Your task to perform on an android device: check out phone information Image 0: 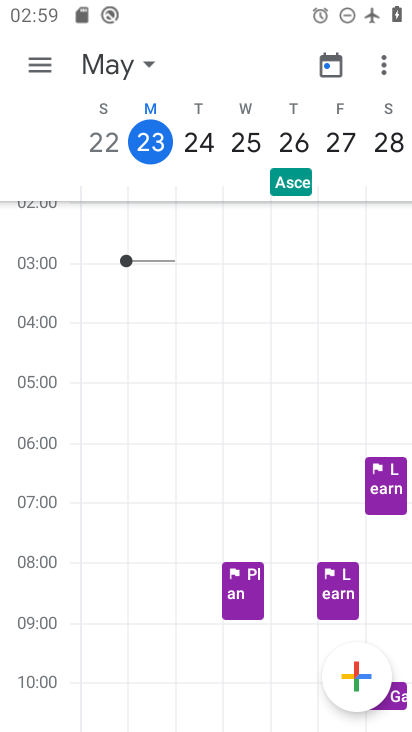
Step 0: press home button
Your task to perform on an android device: check out phone information Image 1: 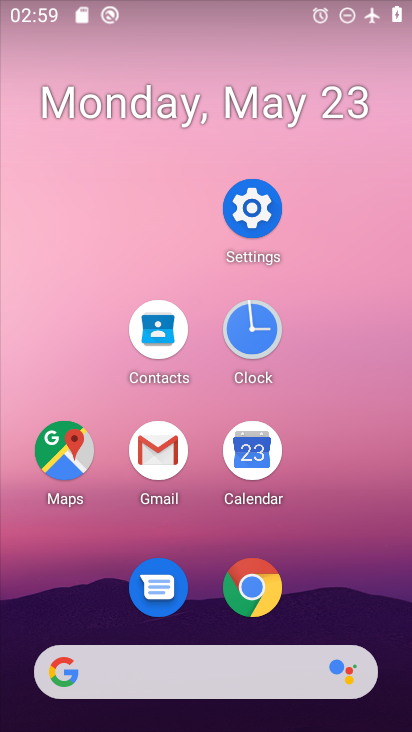
Step 1: click (263, 209)
Your task to perform on an android device: check out phone information Image 2: 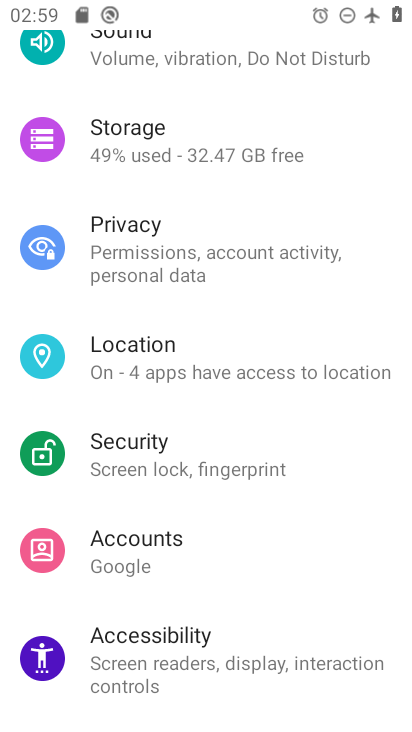
Step 2: drag from (185, 529) to (300, 95)
Your task to perform on an android device: check out phone information Image 3: 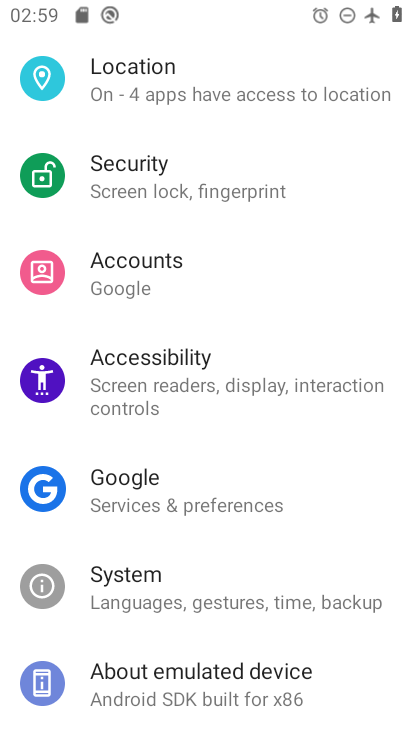
Step 3: click (227, 630)
Your task to perform on an android device: check out phone information Image 4: 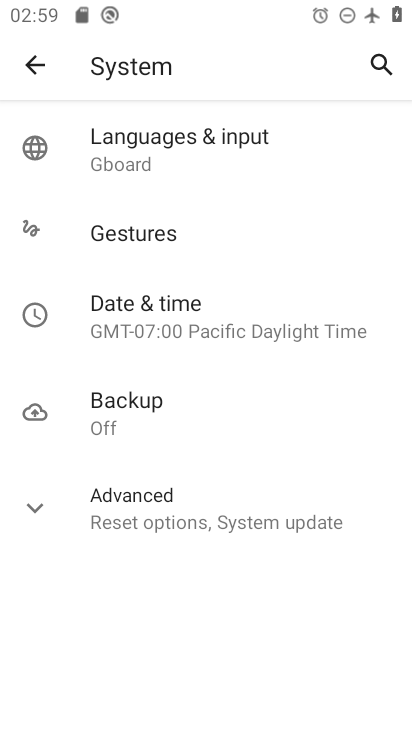
Step 4: task complete